Your task to perform on an android device: Clear the cart on newegg.com. Search for "bose soundlink mini" on newegg.com, select the first entry, add it to the cart, then select checkout. Image 0: 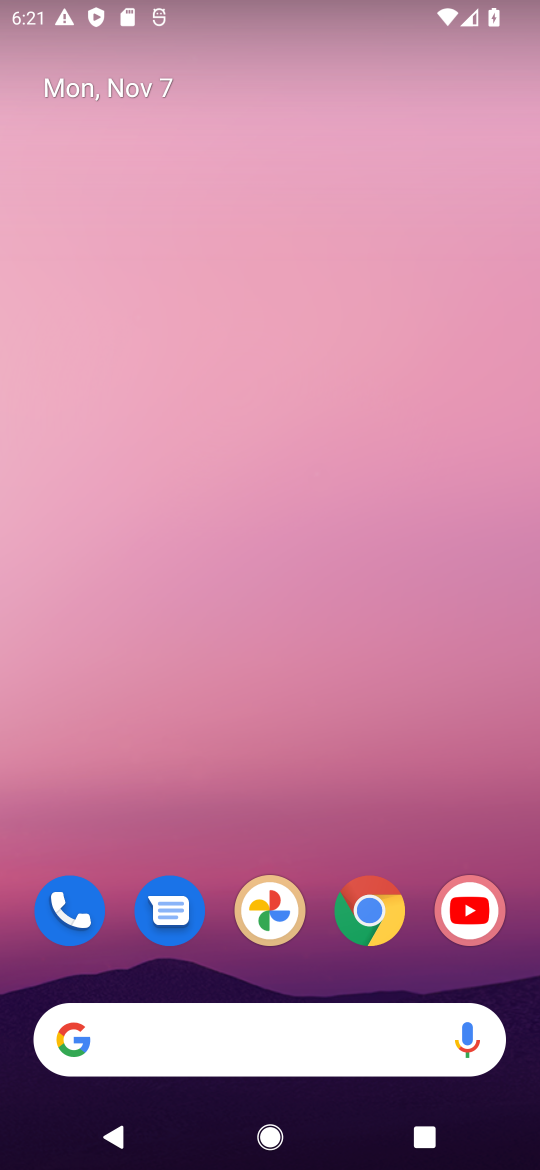
Step 0: click (354, 928)
Your task to perform on an android device: Clear the cart on newegg.com. Search for "bose soundlink mini" on newegg.com, select the first entry, add it to the cart, then select checkout. Image 1: 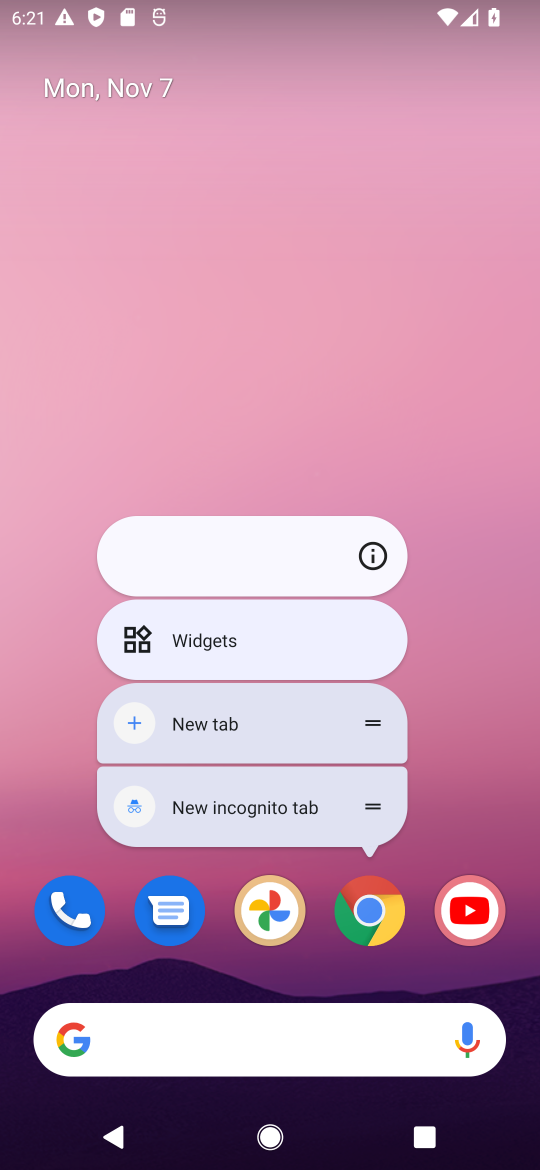
Step 1: click (356, 921)
Your task to perform on an android device: Clear the cart on newegg.com. Search for "bose soundlink mini" on newegg.com, select the first entry, add it to the cart, then select checkout. Image 2: 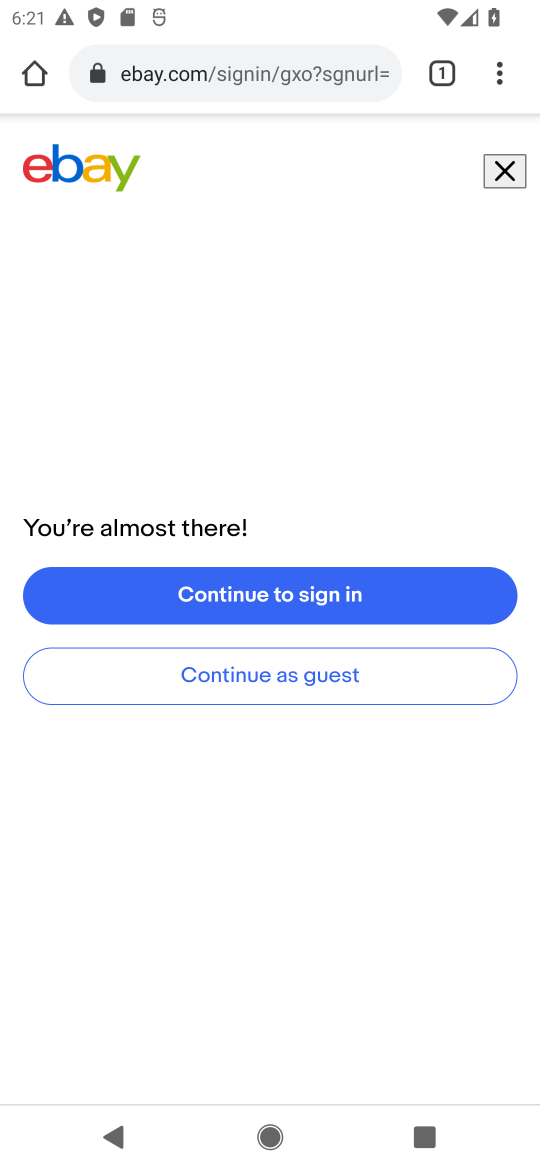
Step 2: click (169, 74)
Your task to perform on an android device: Clear the cart on newegg.com. Search for "bose soundlink mini" on newegg.com, select the first entry, add it to the cart, then select checkout. Image 3: 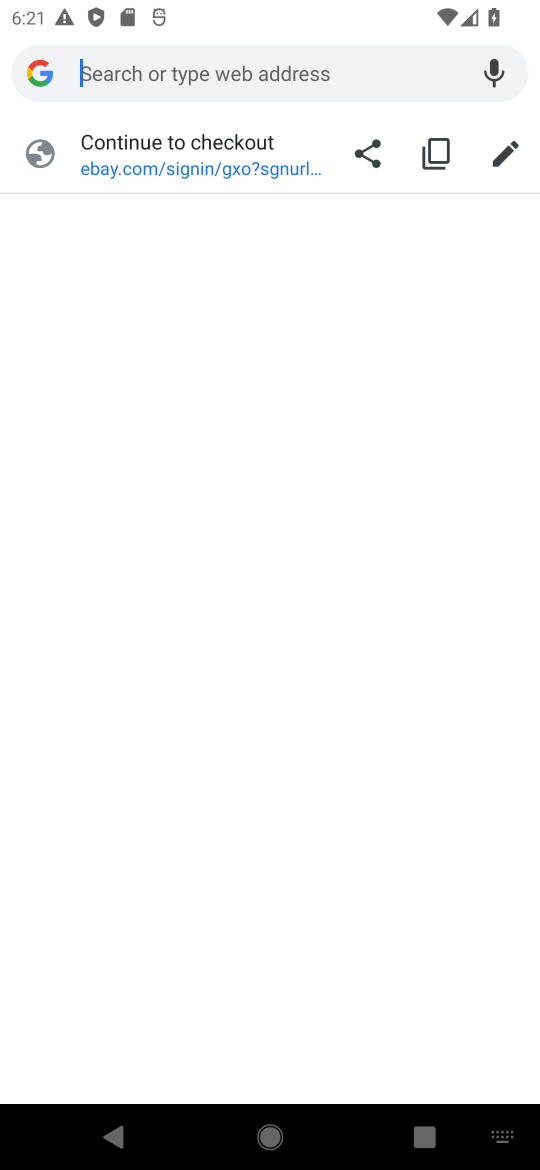
Step 3: type "newegg.com"
Your task to perform on an android device: Clear the cart on newegg.com. Search for "bose soundlink mini" on newegg.com, select the first entry, add it to the cart, then select checkout. Image 4: 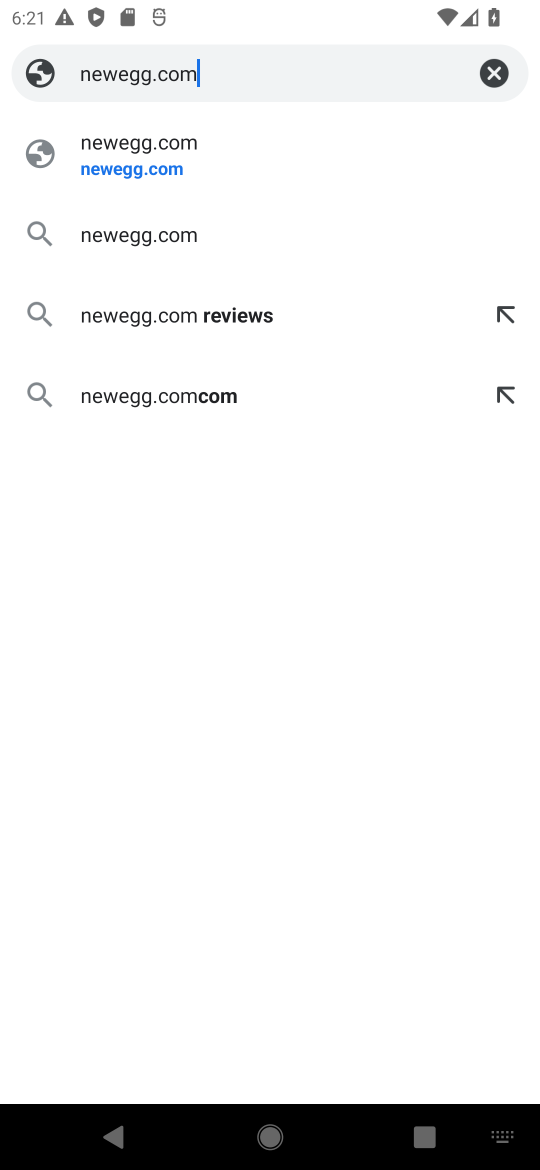
Step 4: press enter
Your task to perform on an android device: Clear the cart on newegg.com. Search for "bose soundlink mini" on newegg.com, select the first entry, add it to the cart, then select checkout. Image 5: 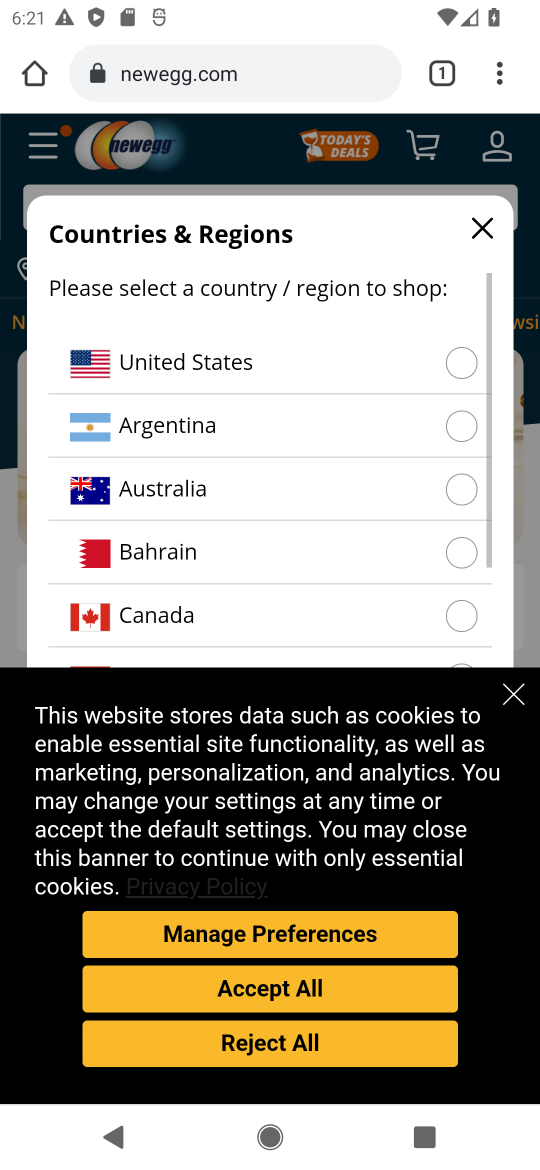
Step 5: drag from (305, 497) to (280, 331)
Your task to perform on an android device: Clear the cart on newegg.com. Search for "bose soundlink mini" on newegg.com, select the first entry, add it to the cart, then select checkout. Image 6: 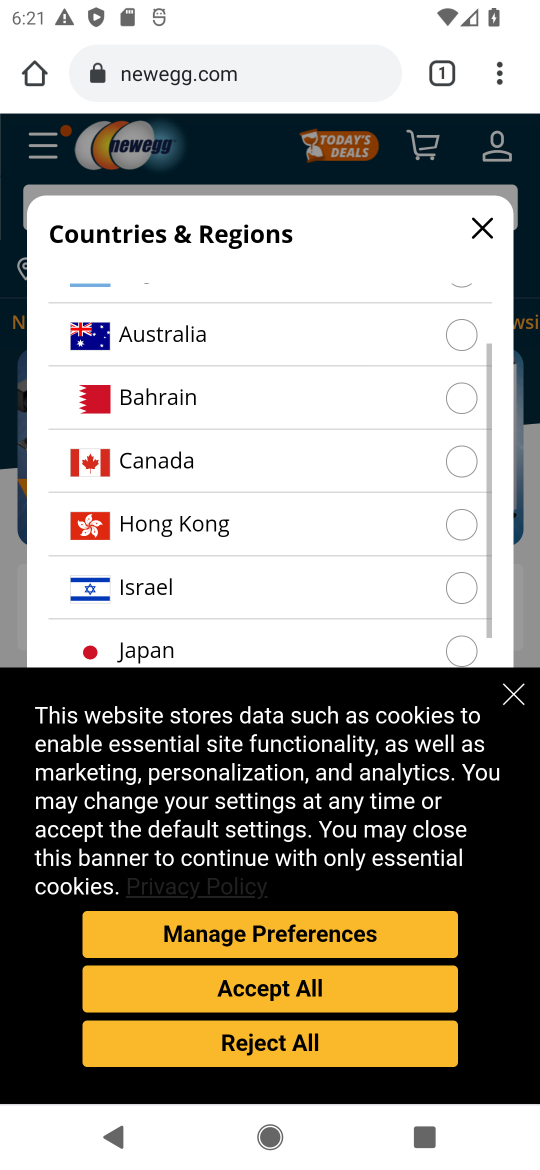
Step 6: drag from (252, 559) to (264, 369)
Your task to perform on an android device: Clear the cart on newegg.com. Search for "bose soundlink mini" on newegg.com, select the first entry, add it to the cart, then select checkout. Image 7: 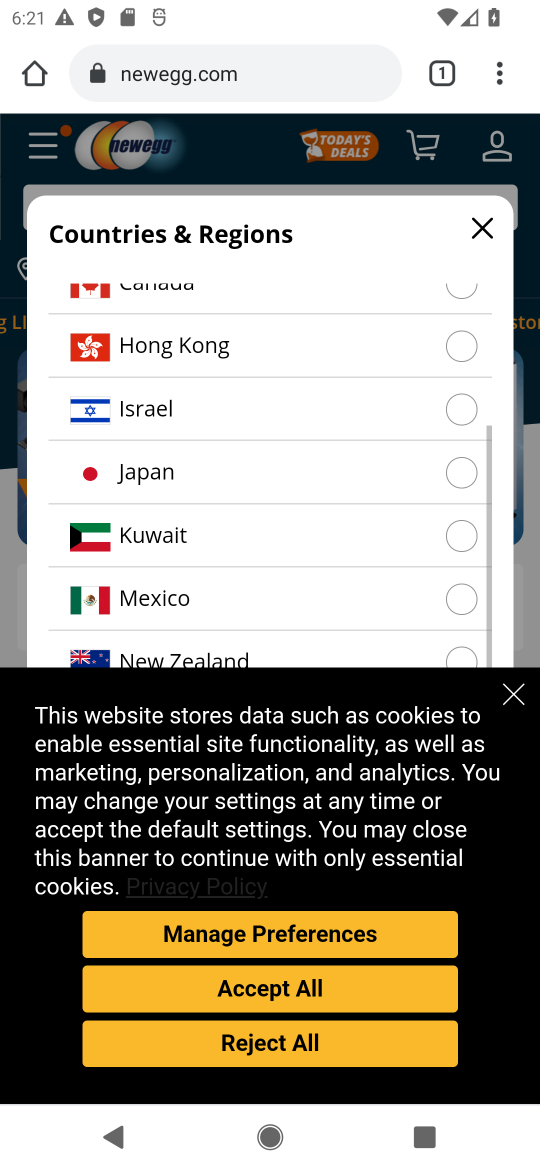
Step 7: drag from (256, 444) to (267, 355)
Your task to perform on an android device: Clear the cart on newegg.com. Search for "bose soundlink mini" on newegg.com, select the first entry, add it to the cart, then select checkout. Image 8: 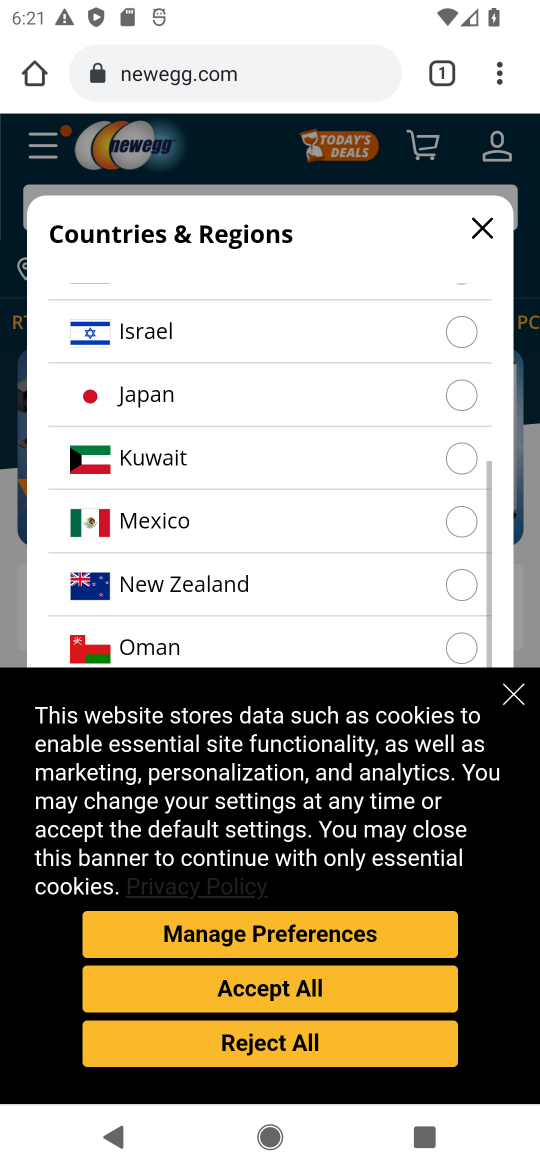
Step 8: drag from (256, 510) to (270, 395)
Your task to perform on an android device: Clear the cart on newegg.com. Search for "bose soundlink mini" on newegg.com, select the first entry, add it to the cart, then select checkout. Image 9: 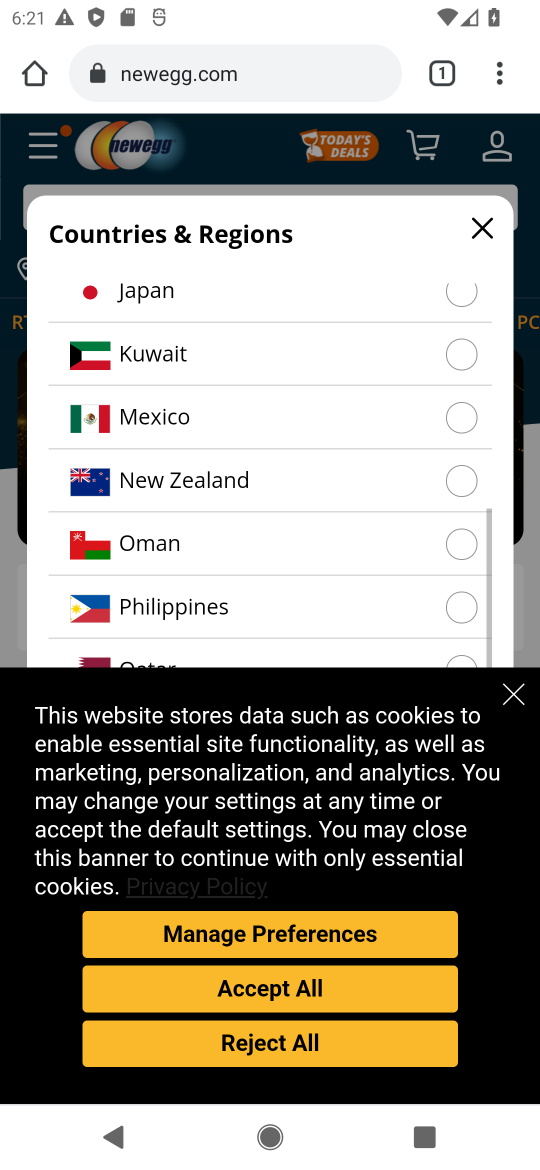
Step 9: drag from (251, 607) to (278, 798)
Your task to perform on an android device: Clear the cart on newegg.com. Search for "bose soundlink mini" on newegg.com, select the first entry, add it to the cart, then select checkout. Image 10: 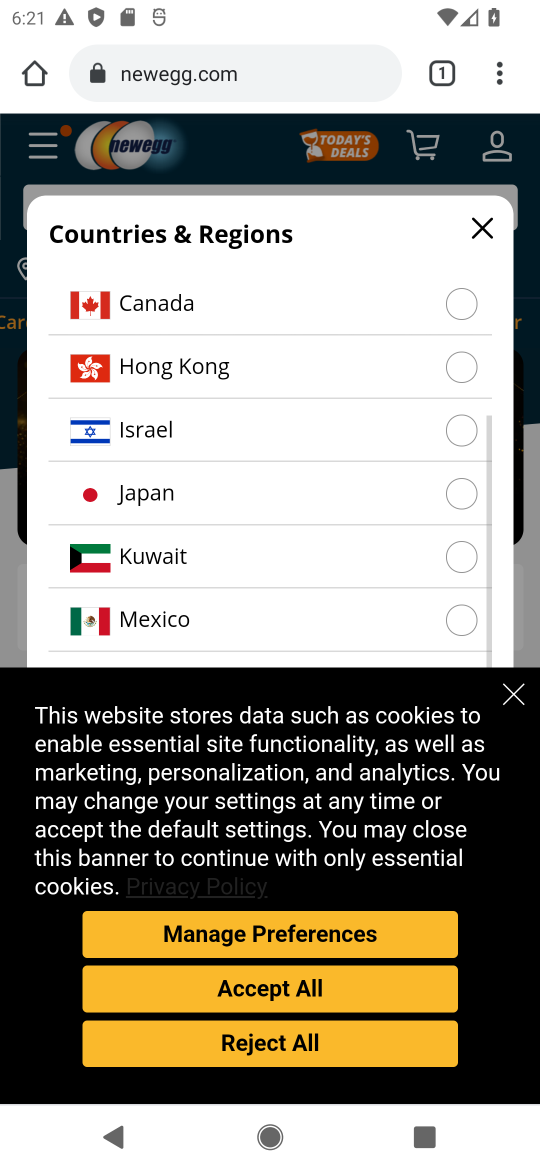
Step 10: drag from (266, 435) to (271, 683)
Your task to perform on an android device: Clear the cart on newegg.com. Search for "bose soundlink mini" on newegg.com, select the first entry, add it to the cart, then select checkout. Image 11: 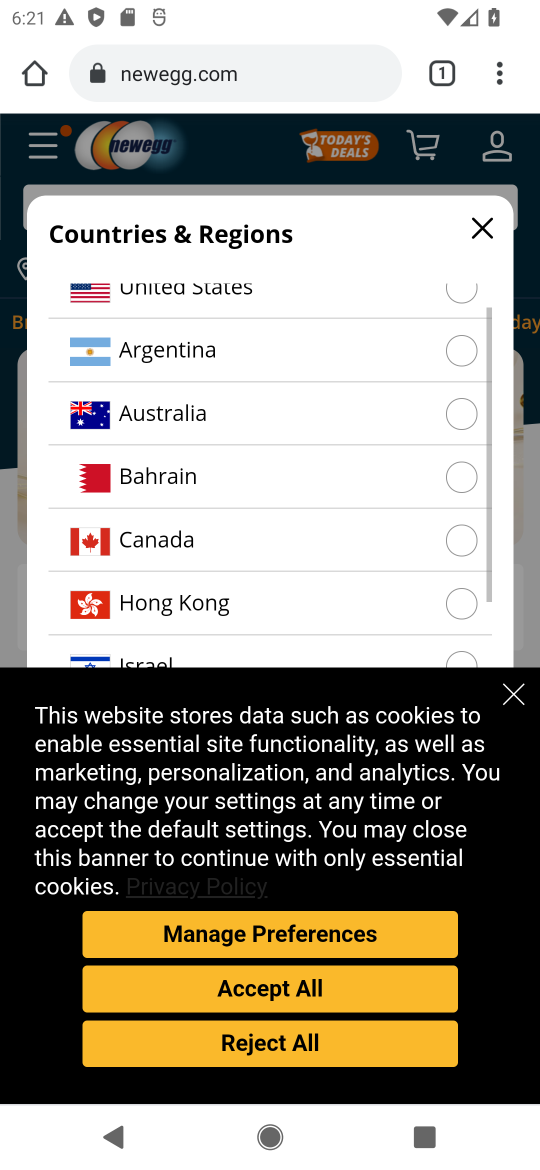
Step 11: drag from (271, 424) to (306, 731)
Your task to perform on an android device: Clear the cart on newegg.com. Search for "bose soundlink mini" on newegg.com, select the first entry, add it to the cart, then select checkout. Image 12: 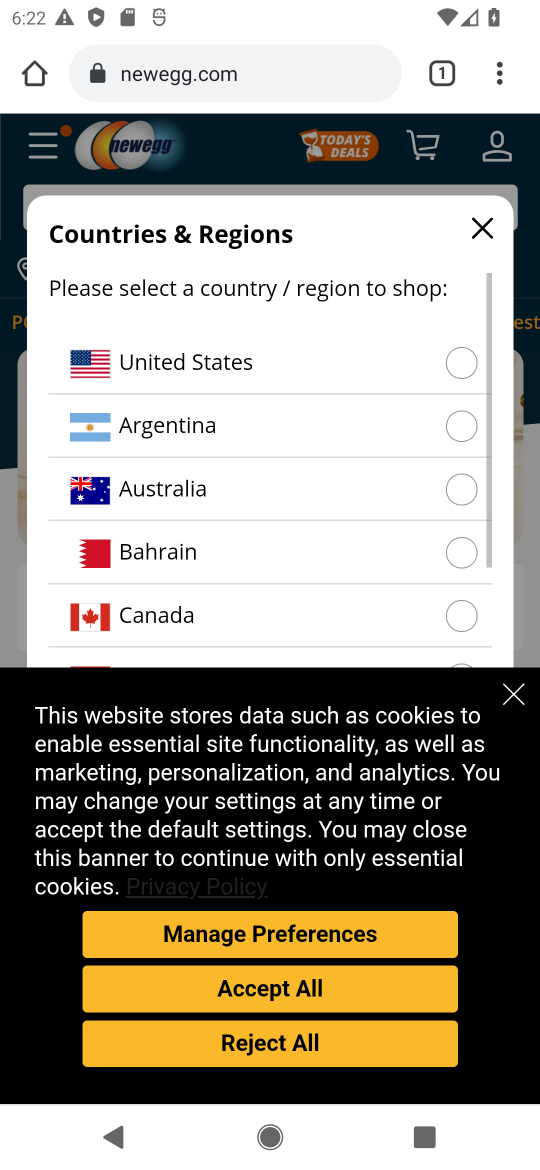
Step 12: drag from (285, 588) to (302, 339)
Your task to perform on an android device: Clear the cart on newegg.com. Search for "bose soundlink mini" on newegg.com, select the first entry, add it to the cart, then select checkout. Image 13: 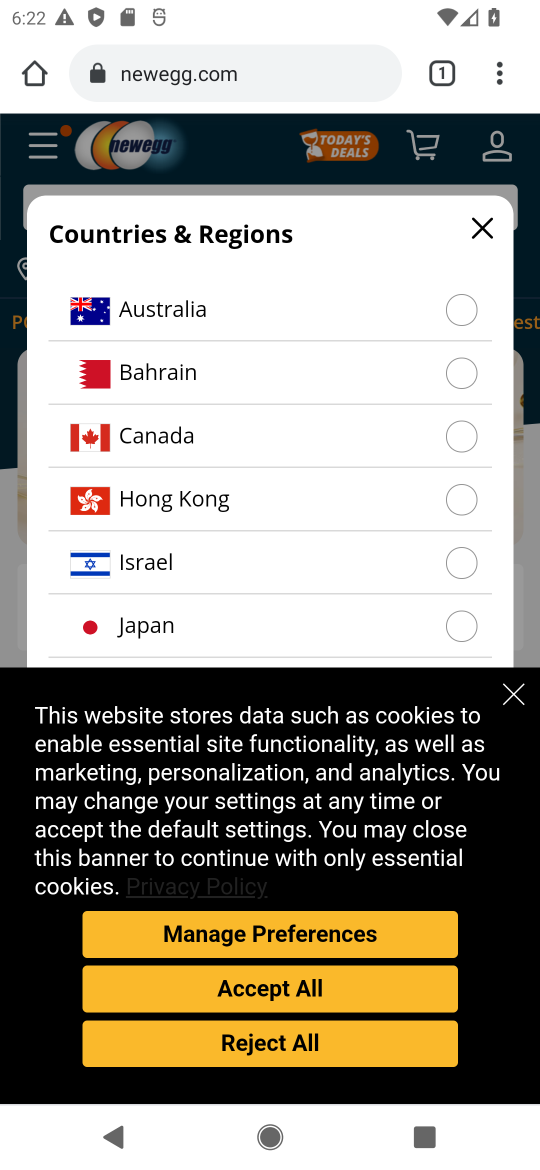
Step 13: drag from (284, 557) to (306, 389)
Your task to perform on an android device: Clear the cart on newegg.com. Search for "bose soundlink mini" on newegg.com, select the first entry, add it to the cart, then select checkout. Image 14: 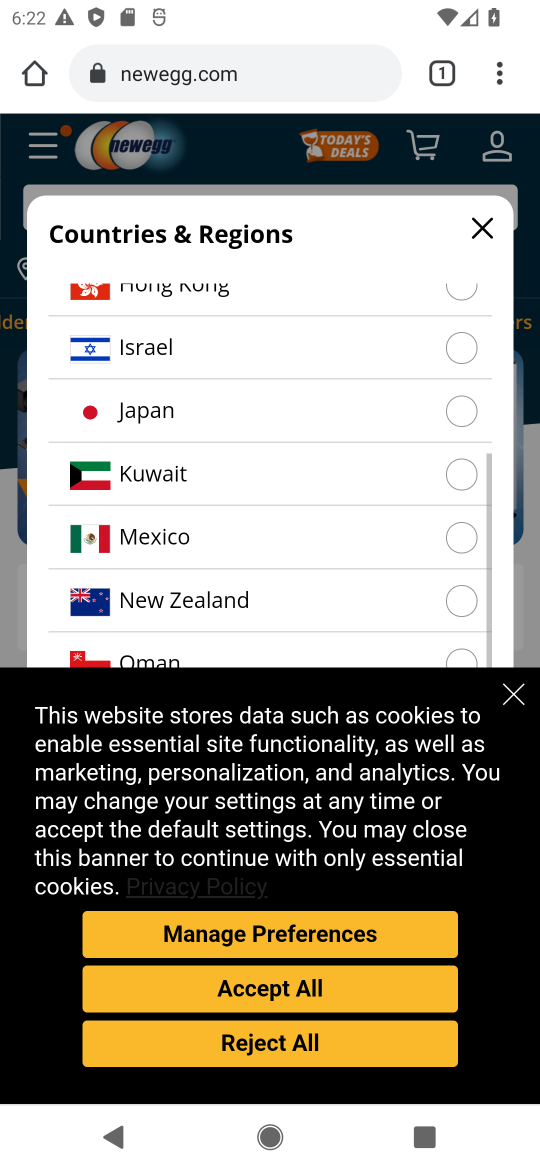
Step 14: drag from (275, 610) to (300, 371)
Your task to perform on an android device: Clear the cart on newegg.com. Search for "bose soundlink mini" on newegg.com, select the first entry, add it to the cart, then select checkout. Image 15: 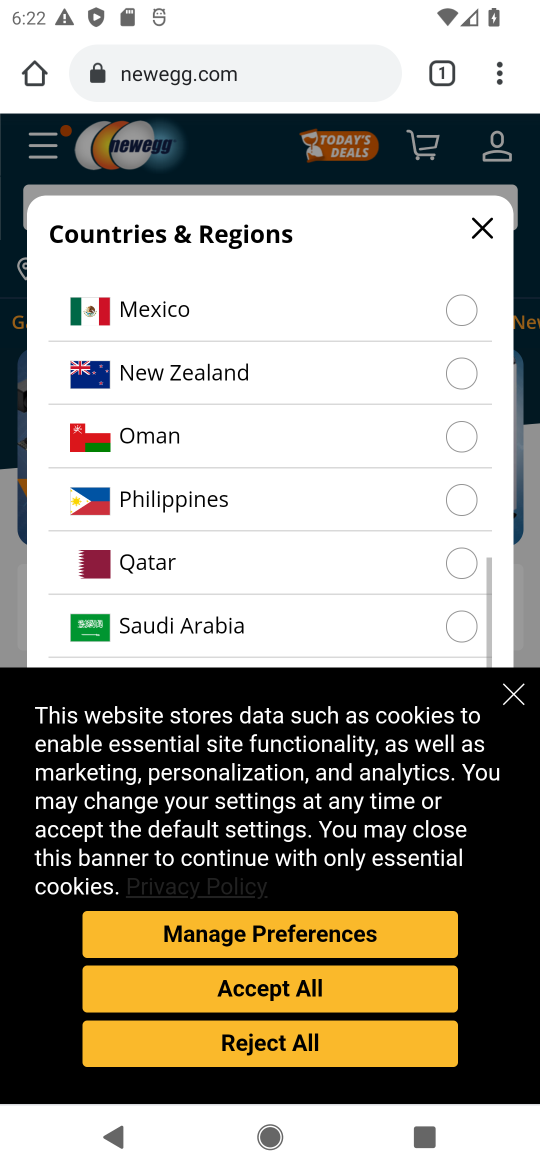
Step 15: drag from (228, 584) to (232, 321)
Your task to perform on an android device: Clear the cart on newegg.com. Search for "bose soundlink mini" on newegg.com, select the first entry, add it to the cart, then select checkout. Image 16: 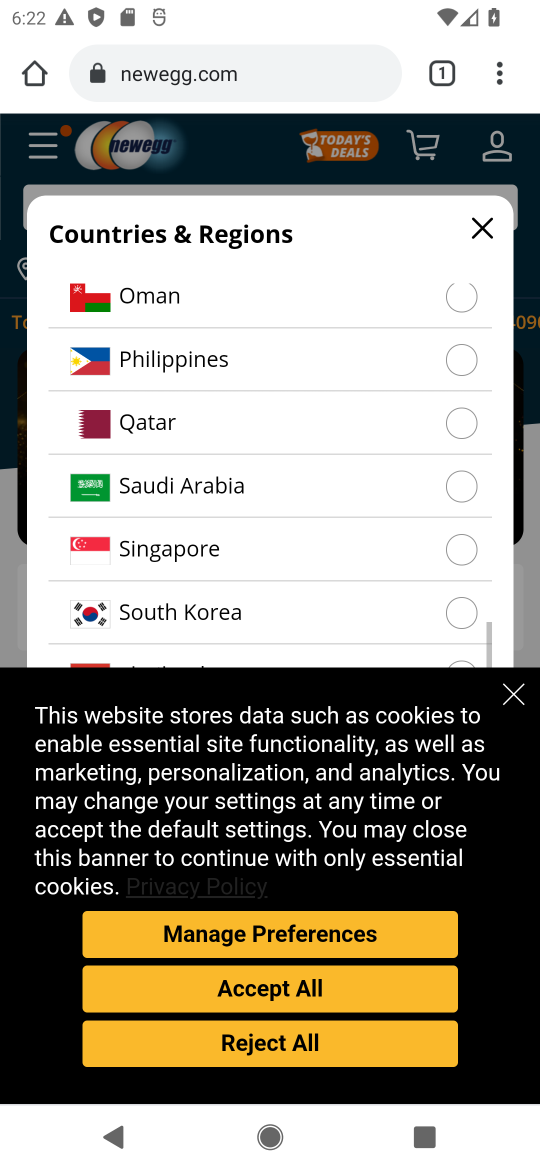
Step 16: drag from (290, 468) to (274, 808)
Your task to perform on an android device: Clear the cart on newegg.com. Search for "bose soundlink mini" on newegg.com, select the first entry, add it to the cart, then select checkout. Image 17: 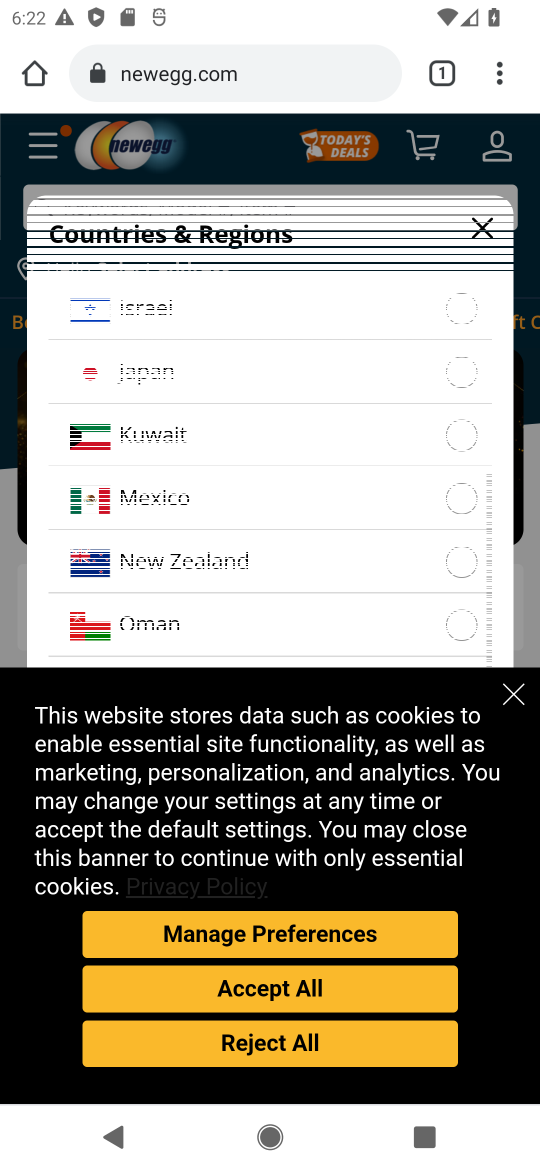
Step 17: drag from (273, 467) to (264, 875)
Your task to perform on an android device: Clear the cart on newegg.com. Search for "bose soundlink mini" on newegg.com, select the first entry, add it to the cart, then select checkout. Image 18: 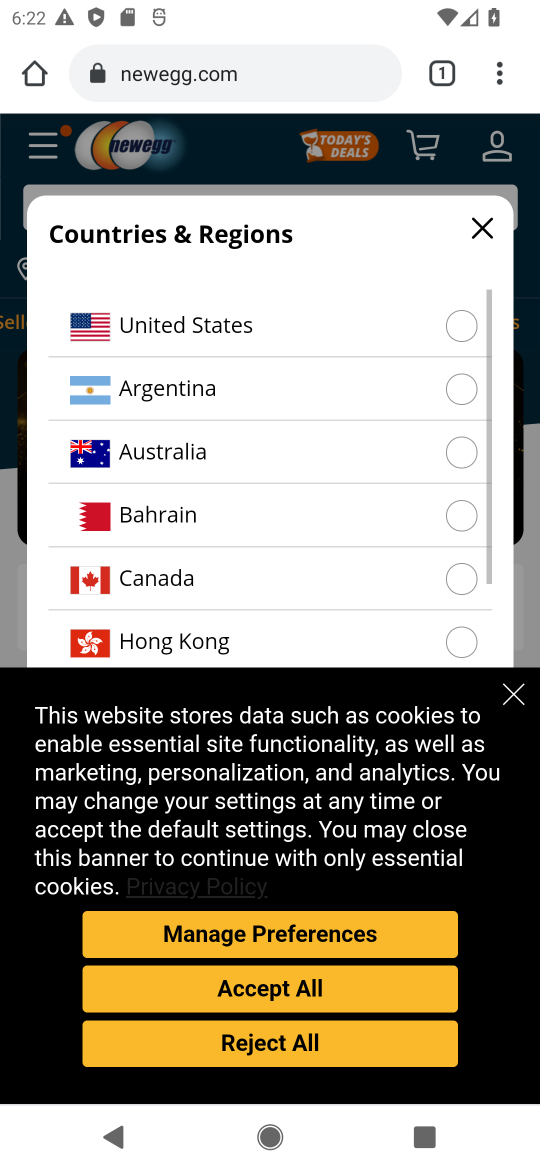
Step 18: drag from (281, 487) to (280, 758)
Your task to perform on an android device: Clear the cart on newegg.com. Search for "bose soundlink mini" on newegg.com, select the first entry, add it to the cart, then select checkout. Image 19: 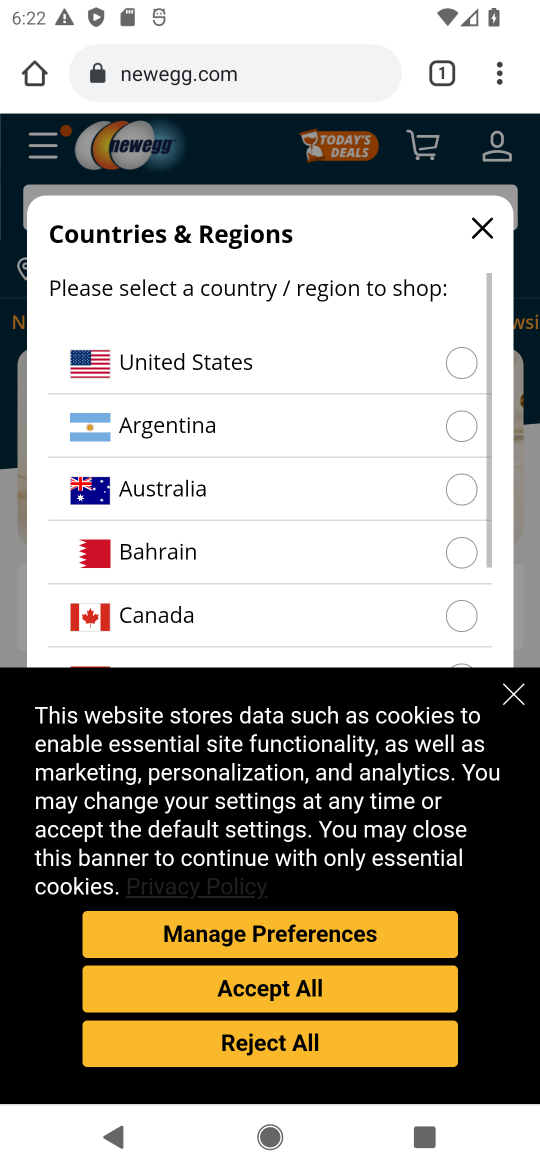
Step 19: click (215, 367)
Your task to perform on an android device: Clear the cart on newegg.com. Search for "bose soundlink mini" on newegg.com, select the first entry, add it to the cart, then select checkout. Image 20: 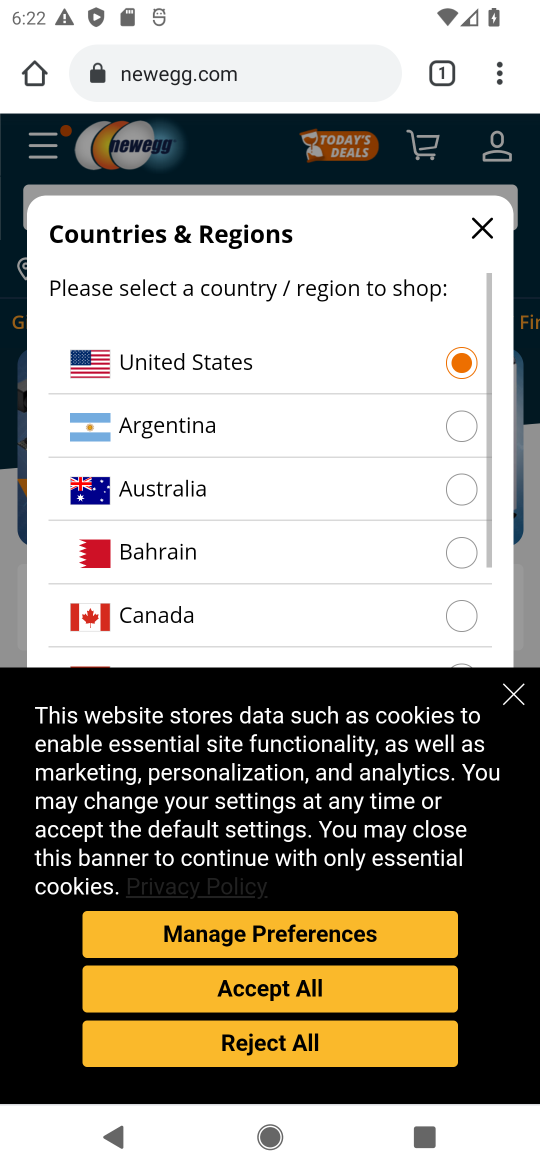
Step 20: click (304, 1004)
Your task to perform on an android device: Clear the cart on newegg.com. Search for "bose soundlink mini" on newegg.com, select the first entry, add it to the cart, then select checkout. Image 21: 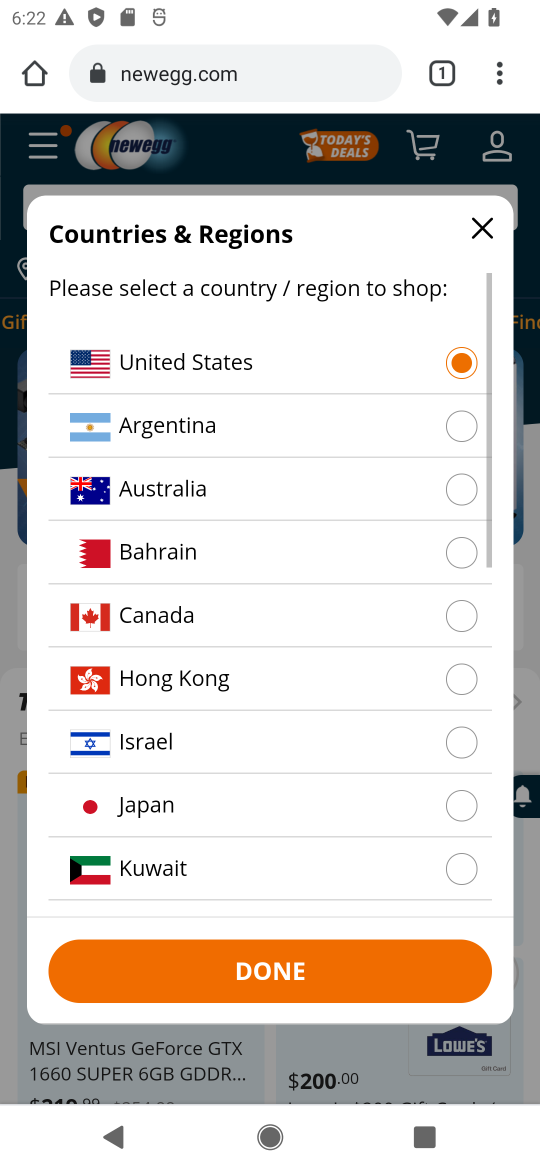
Step 21: click (302, 990)
Your task to perform on an android device: Clear the cart on newegg.com. Search for "bose soundlink mini" on newegg.com, select the first entry, add it to the cart, then select checkout. Image 22: 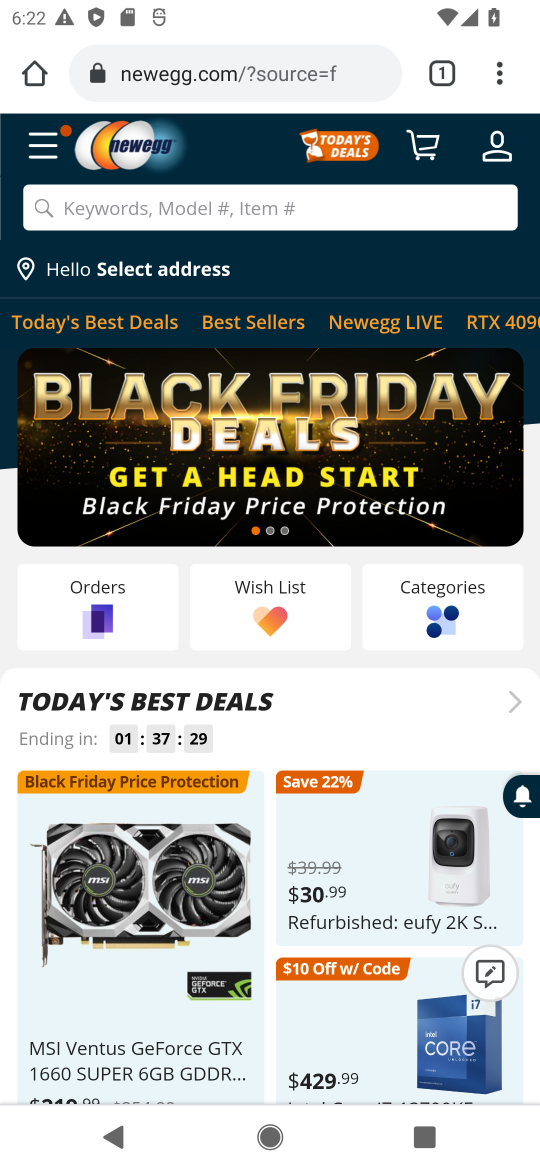
Step 22: click (244, 216)
Your task to perform on an android device: Clear the cart on newegg.com. Search for "bose soundlink mini" on newegg.com, select the first entry, add it to the cart, then select checkout. Image 23: 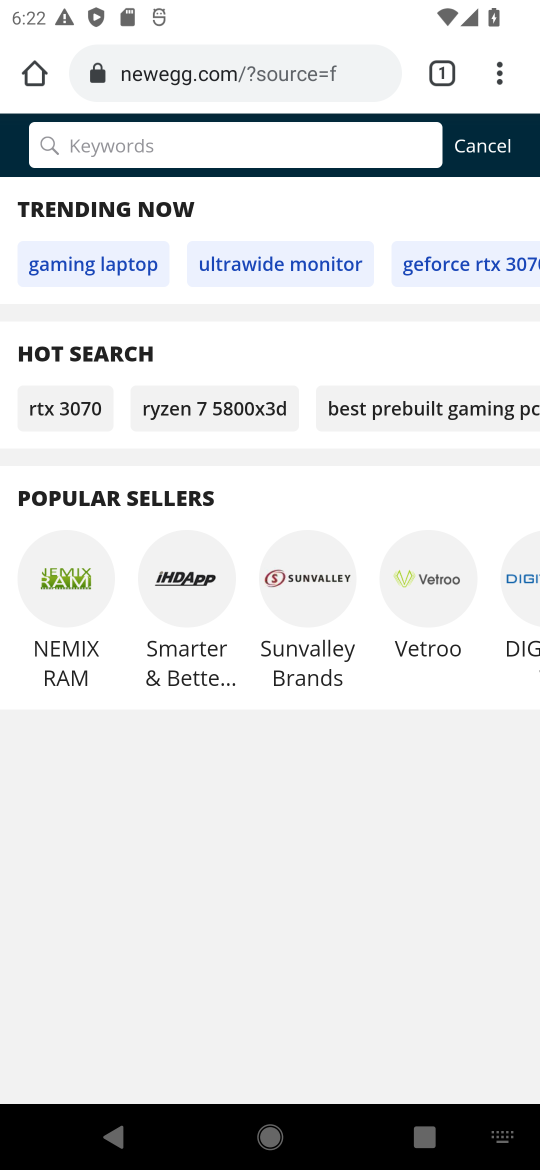
Step 23: type "bose soundlink mini"
Your task to perform on an android device: Clear the cart on newegg.com. Search for "bose soundlink mini" on newegg.com, select the first entry, add it to the cart, then select checkout. Image 24: 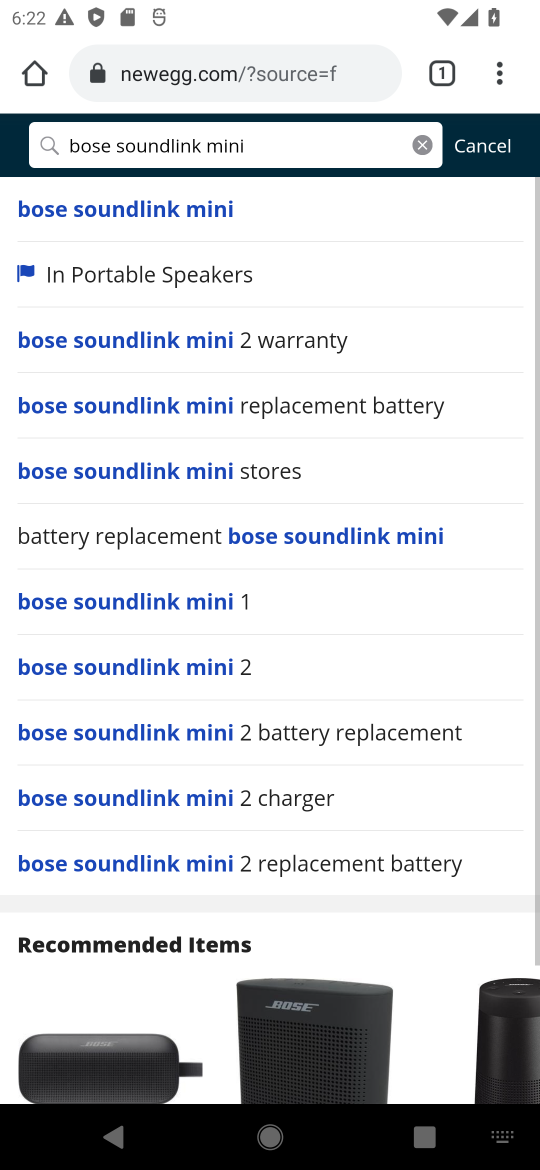
Step 24: press enter
Your task to perform on an android device: Clear the cart on newegg.com. Search for "bose soundlink mini" on newegg.com, select the first entry, add it to the cart, then select checkout. Image 25: 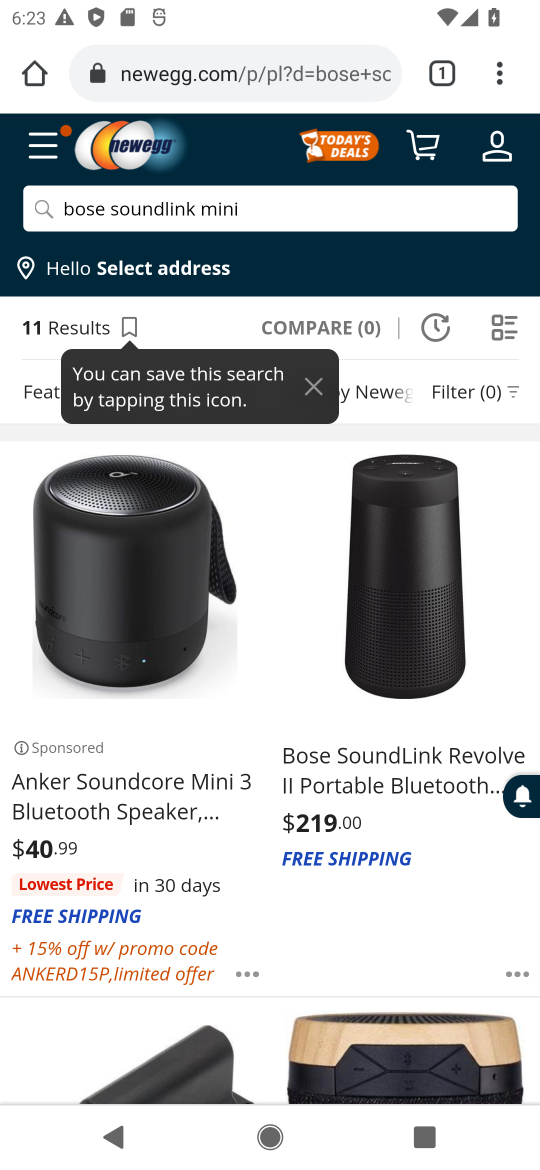
Step 25: drag from (184, 901) to (212, 564)
Your task to perform on an android device: Clear the cart on newegg.com. Search for "bose soundlink mini" on newegg.com, select the first entry, add it to the cart, then select checkout. Image 26: 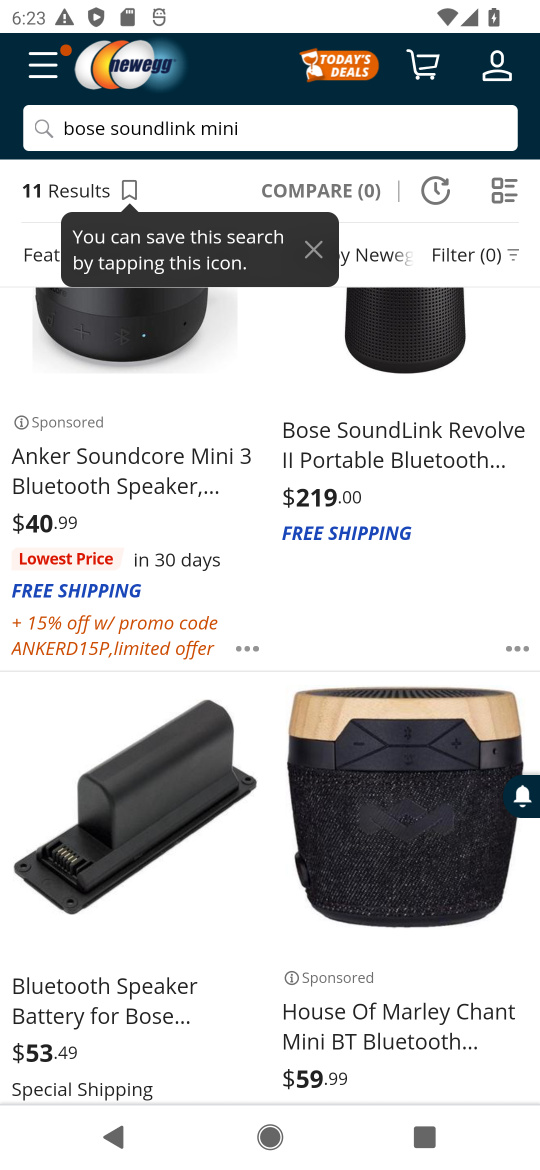
Step 26: drag from (225, 937) to (134, 1168)
Your task to perform on an android device: Clear the cart on newegg.com. Search for "bose soundlink mini" on newegg.com, select the first entry, add it to the cart, then select checkout. Image 27: 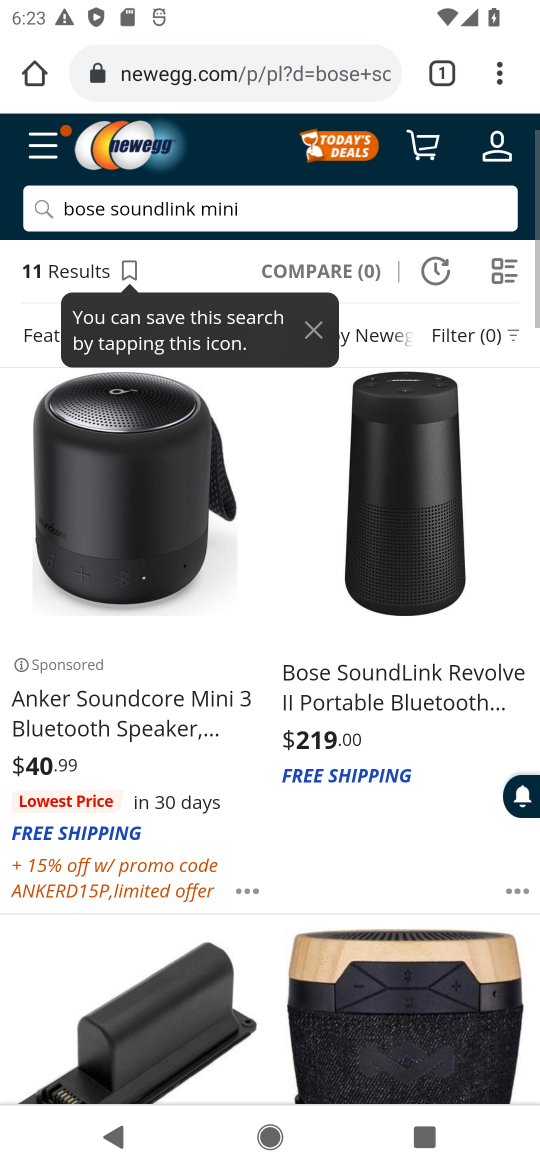
Step 27: drag from (62, 924) to (61, 1164)
Your task to perform on an android device: Clear the cart on newegg.com. Search for "bose soundlink mini" on newegg.com, select the first entry, add it to the cart, then select checkout. Image 28: 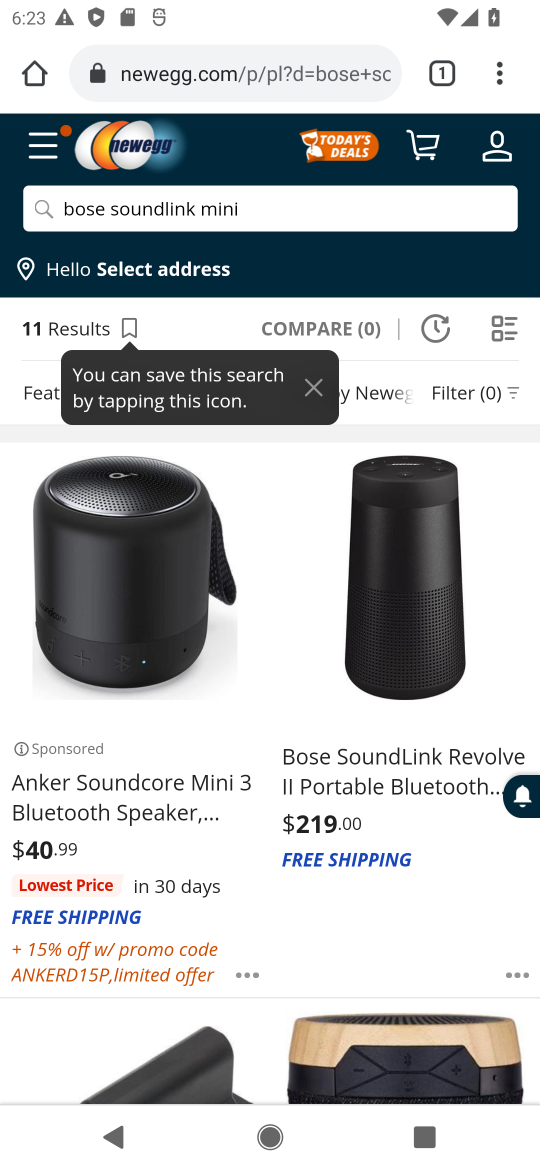
Step 28: drag from (183, 727) to (159, 1115)
Your task to perform on an android device: Clear the cart on newegg.com. Search for "bose soundlink mini" on newegg.com, select the first entry, add it to the cart, then select checkout. Image 29: 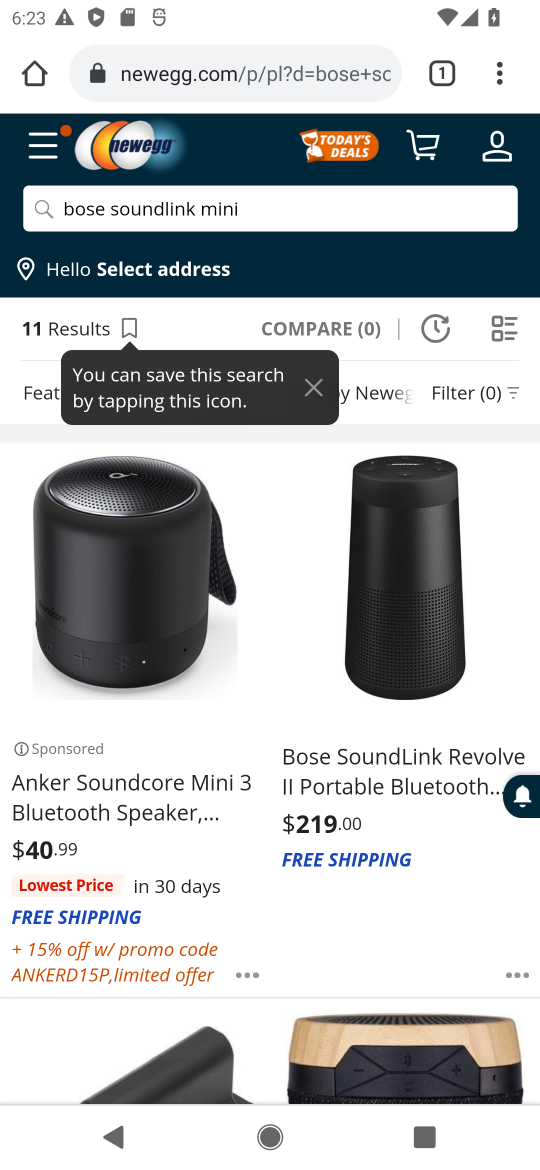
Step 29: click (154, 645)
Your task to perform on an android device: Clear the cart on newegg.com. Search for "bose soundlink mini" on newegg.com, select the first entry, add it to the cart, then select checkout. Image 30: 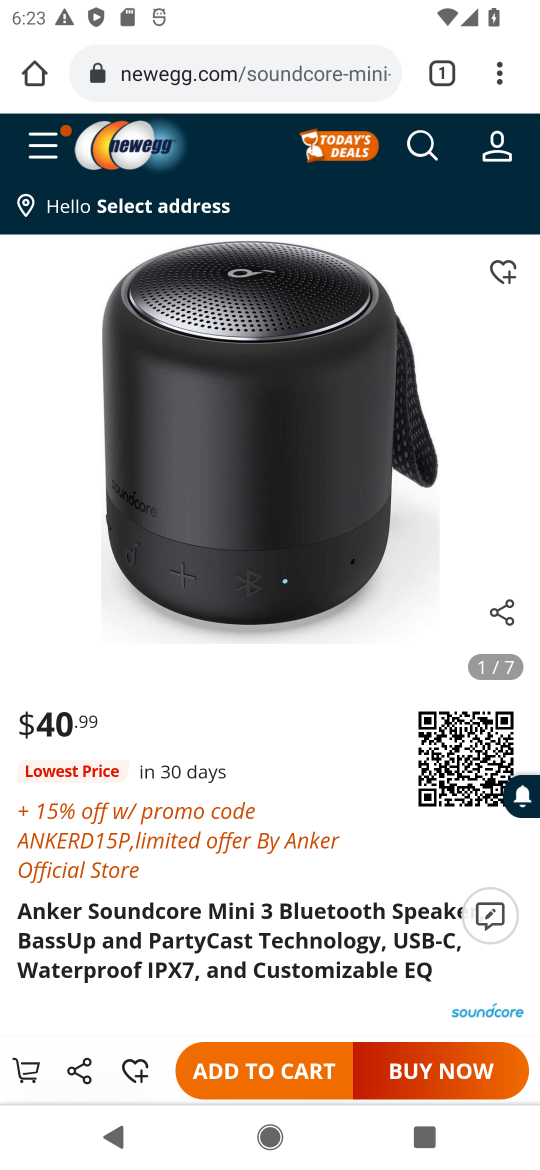
Step 30: click (248, 1053)
Your task to perform on an android device: Clear the cart on newegg.com. Search for "bose soundlink mini" on newegg.com, select the first entry, add it to the cart, then select checkout. Image 31: 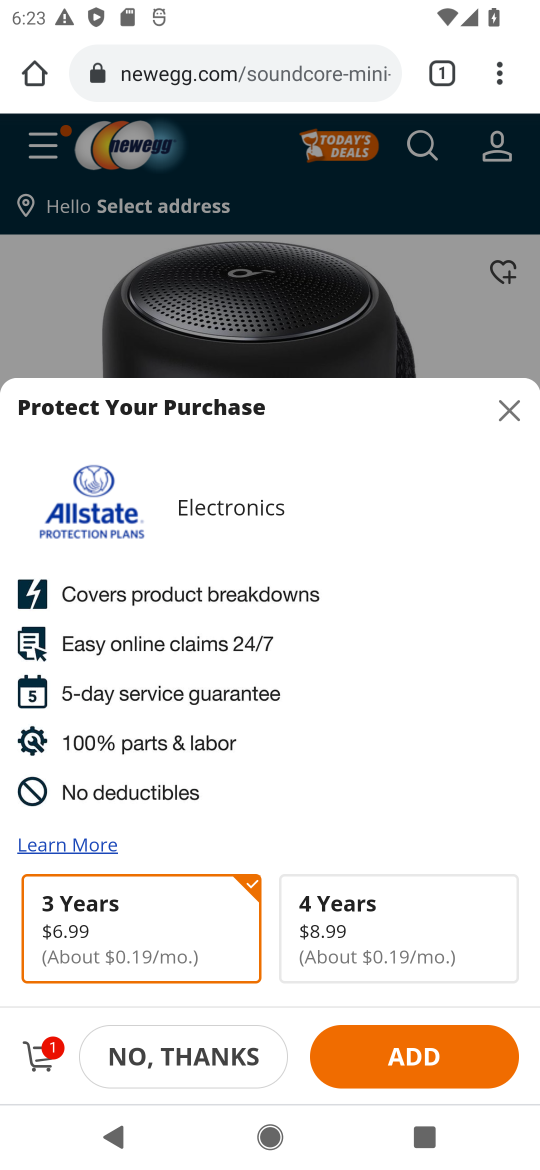
Step 31: click (421, 1060)
Your task to perform on an android device: Clear the cart on newegg.com. Search for "bose soundlink mini" on newegg.com, select the first entry, add it to the cart, then select checkout. Image 32: 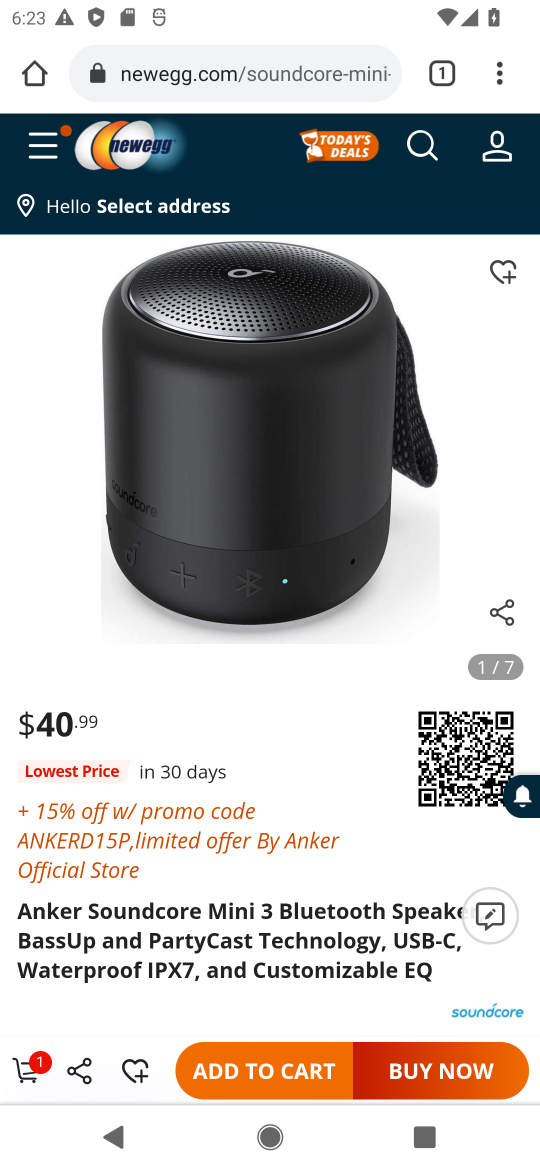
Step 32: click (25, 148)
Your task to perform on an android device: Clear the cart on newegg.com. Search for "bose soundlink mini" on newegg.com, select the first entry, add it to the cart, then select checkout. Image 33: 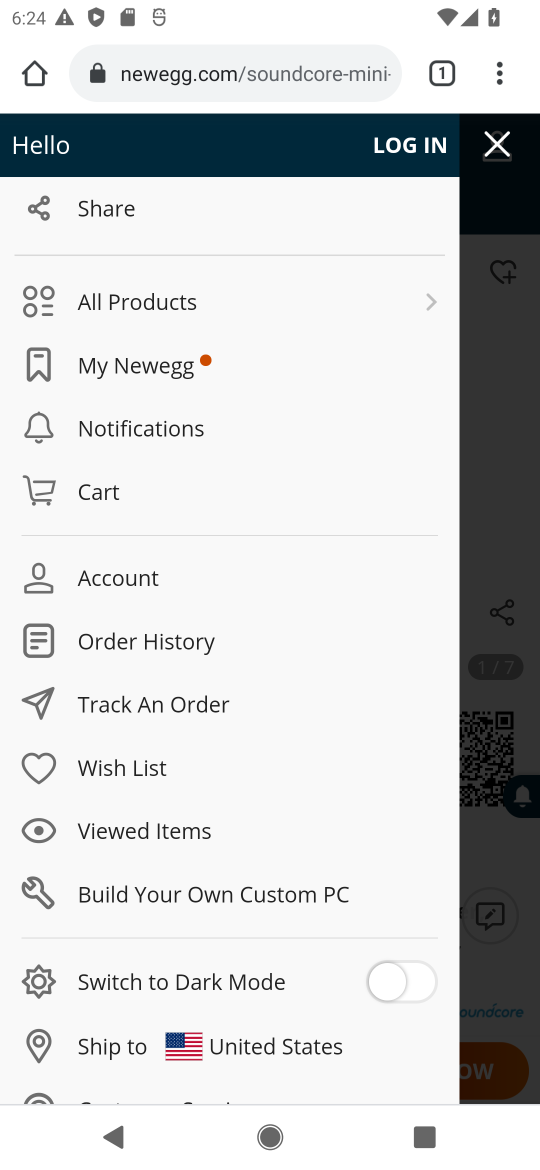
Step 33: click (106, 494)
Your task to perform on an android device: Clear the cart on newegg.com. Search for "bose soundlink mini" on newegg.com, select the first entry, add it to the cart, then select checkout. Image 34: 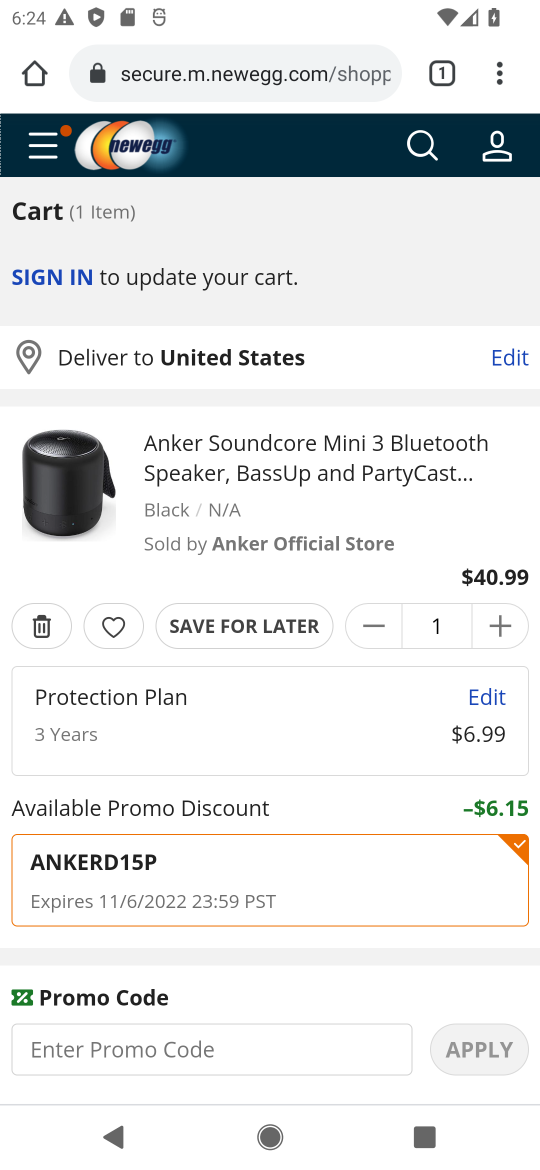
Step 34: drag from (330, 784) to (303, 493)
Your task to perform on an android device: Clear the cart on newegg.com. Search for "bose soundlink mini" on newegg.com, select the first entry, add it to the cart, then select checkout. Image 35: 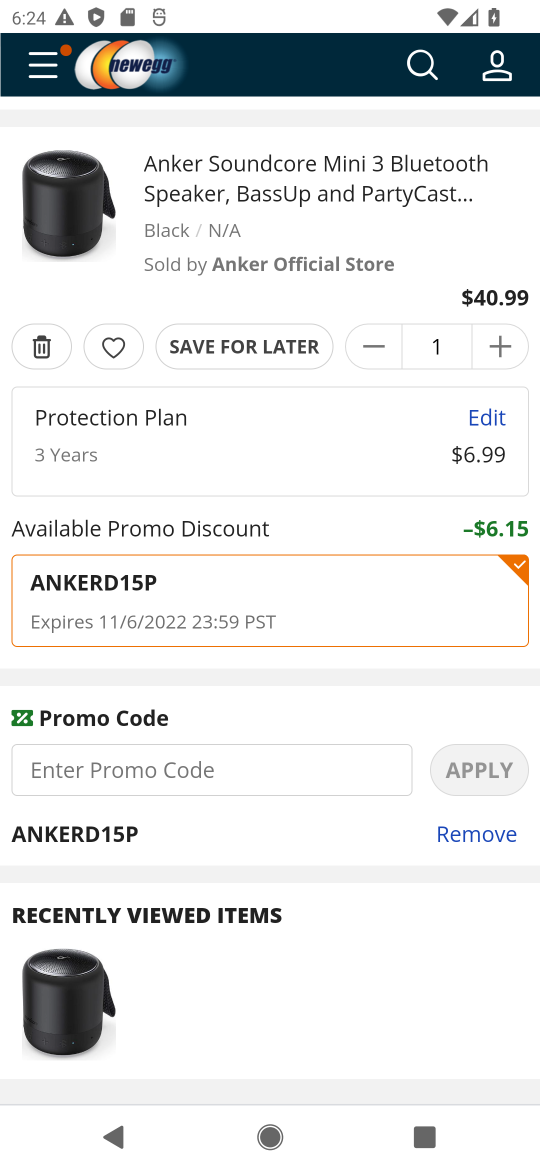
Step 35: drag from (287, 897) to (263, 557)
Your task to perform on an android device: Clear the cart on newegg.com. Search for "bose soundlink mini" on newegg.com, select the first entry, add it to the cart, then select checkout. Image 36: 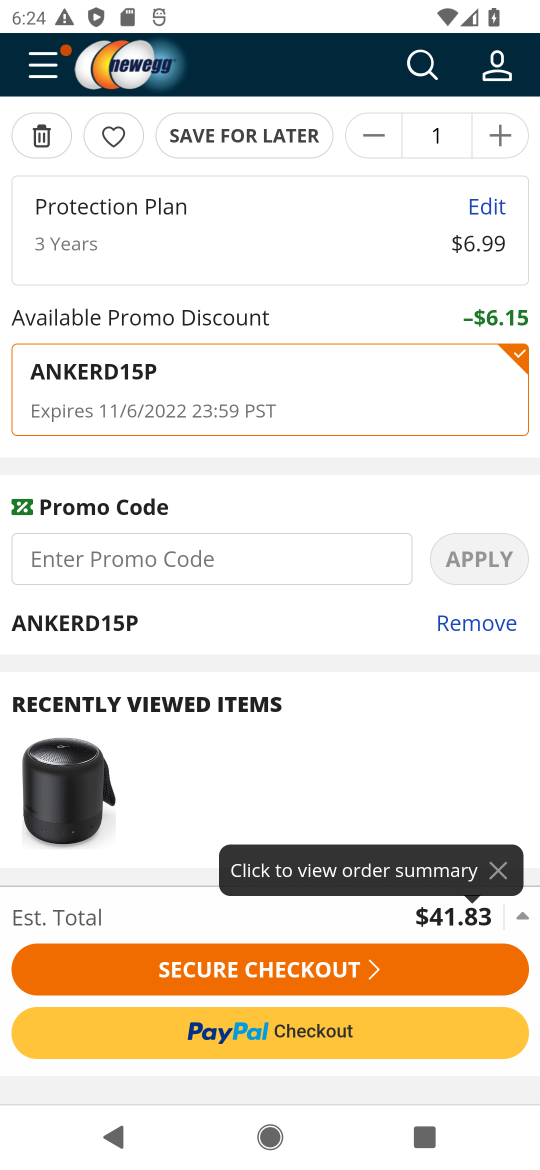
Step 36: click (216, 964)
Your task to perform on an android device: Clear the cart on newegg.com. Search for "bose soundlink mini" on newegg.com, select the first entry, add it to the cart, then select checkout. Image 37: 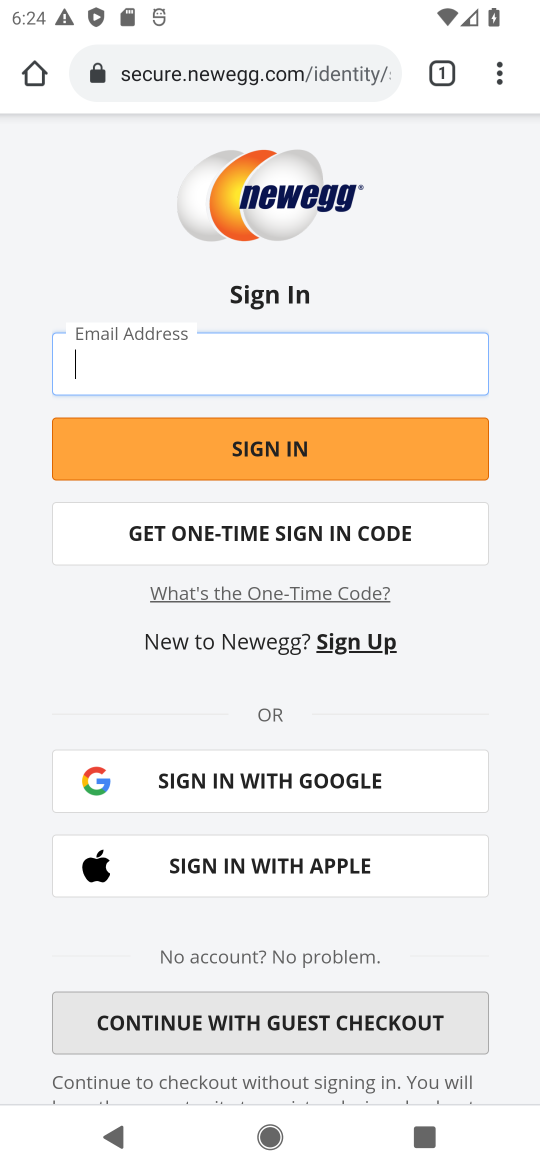
Step 37: task complete